Your task to perform on an android device: open app "PUBG MOBILE" (install if not already installed) and enter user name: "phenomenologically@gmail.com" and password: "artillery" Image 0: 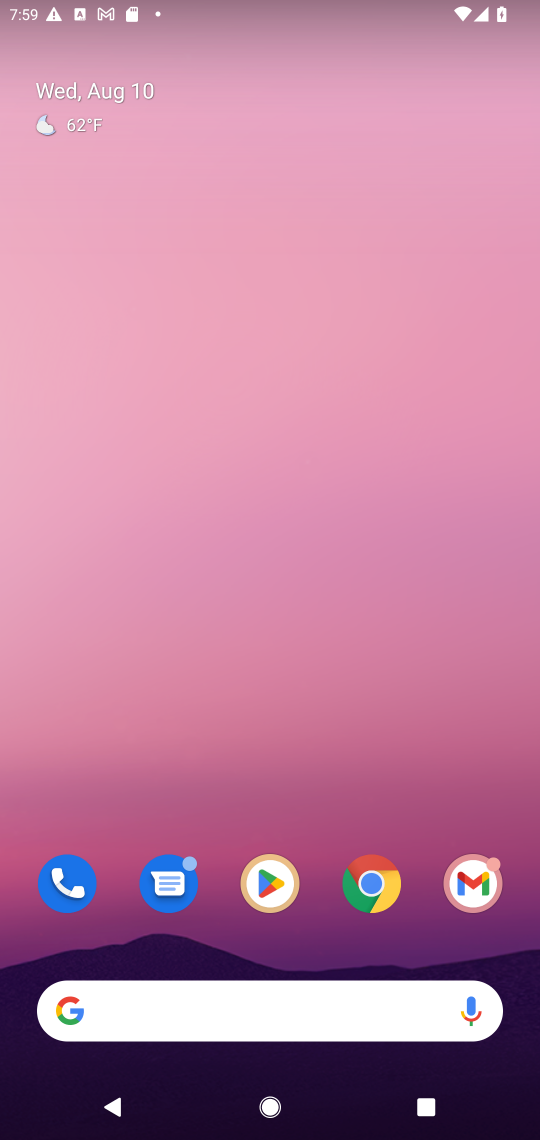
Step 0: click (255, 862)
Your task to perform on an android device: open app "PUBG MOBILE" (install if not already installed) and enter user name: "phenomenologically@gmail.com" and password: "artillery" Image 1: 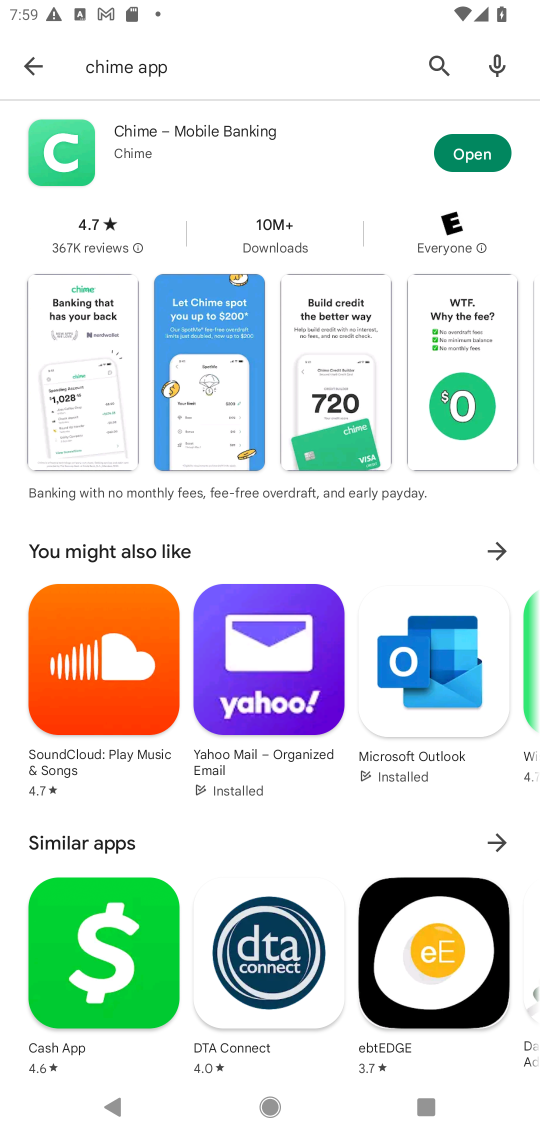
Step 1: click (448, 57)
Your task to perform on an android device: open app "PUBG MOBILE" (install if not already installed) and enter user name: "phenomenologically@gmail.com" and password: "artillery" Image 2: 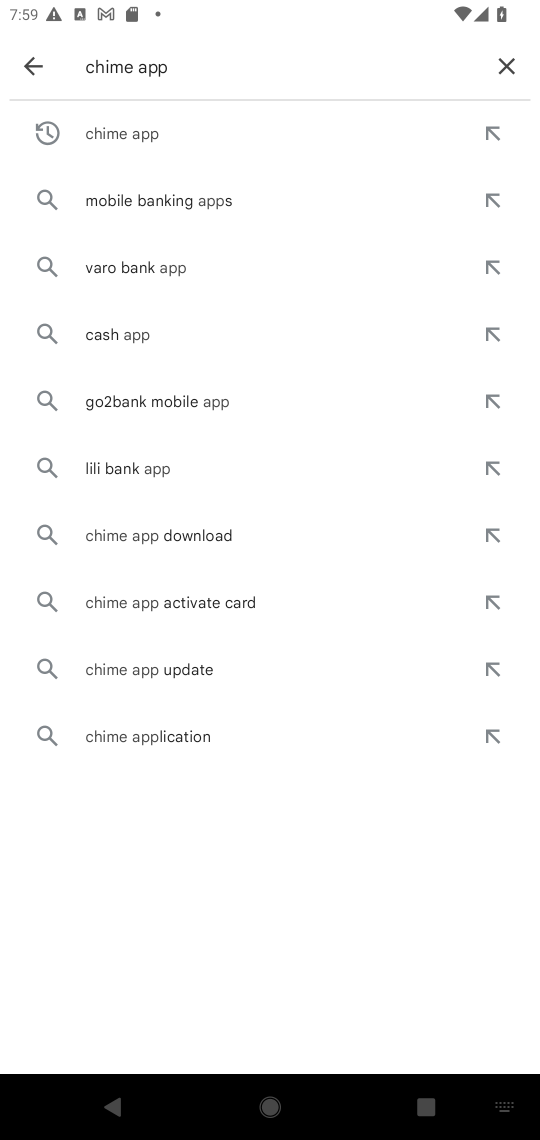
Step 2: click (495, 71)
Your task to perform on an android device: open app "PUBG MOBILE" (install if not already installed) and enter user name: "phenomenologically@gmail.com" and password: "artillery" Image 3: 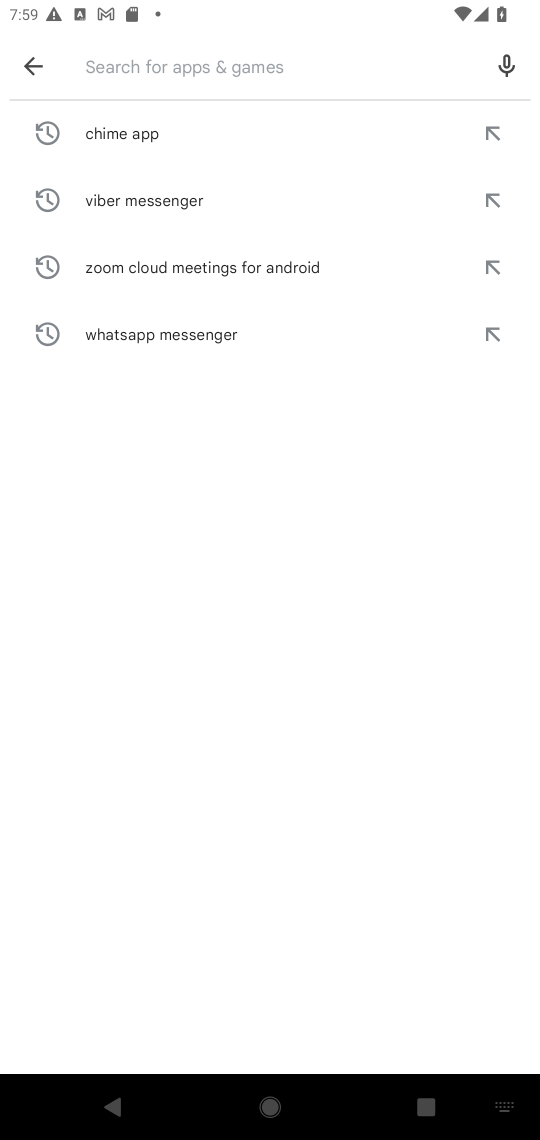
Step 3: type "PUBG MOBILE"
Your task to perform on an android device: open app "PUBG MOBILE" (install if not already installed) and enter user name: "phenomenologically@gmail.com" and password: "artillery" Image 4: 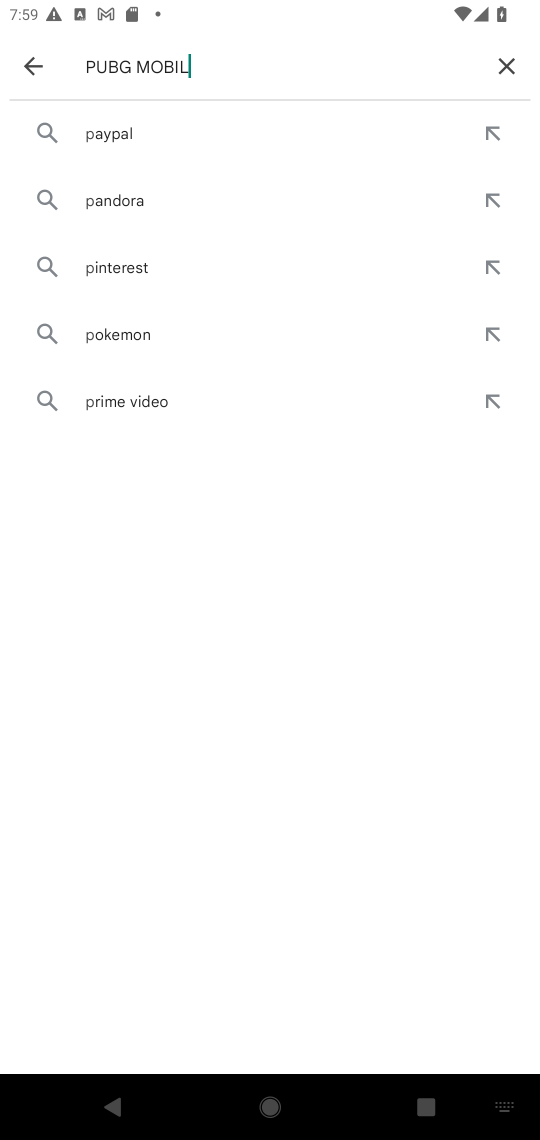
Step 4: type ""
Your task to perform on an android device: open app "PUBG MOBILE" (install if not already installed) and enter user name: "phenomenologically@gmail.com" and password: "artillery" Image 5: 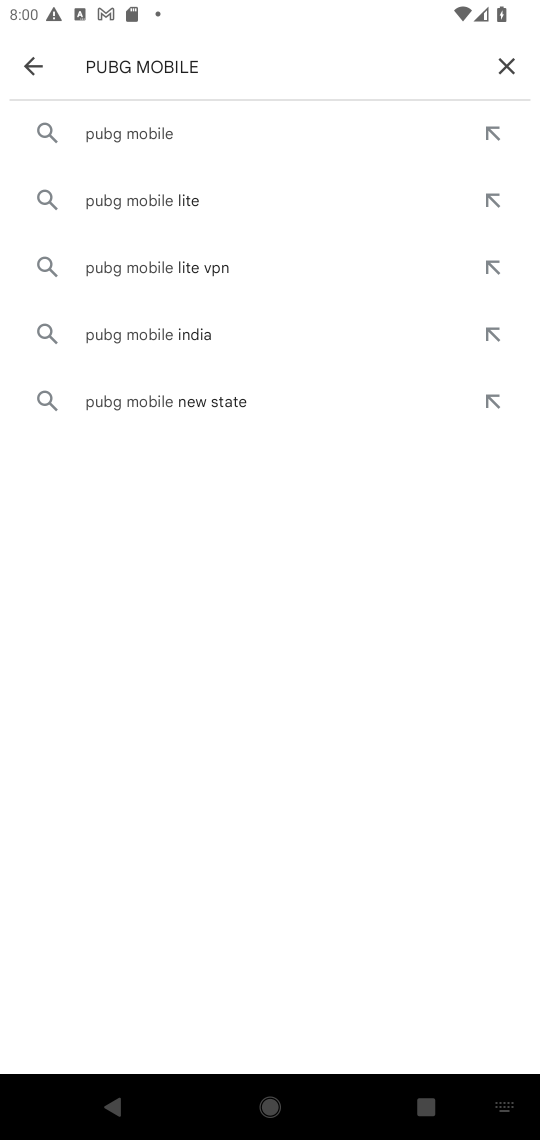
Step 5: click (143, 141)
Your task to perform on an android device: open app "PUBG MOBILE" (install if not already installed) and enter user name: "phenomenologically@gmail.com" and password: "artillery" Image 6: 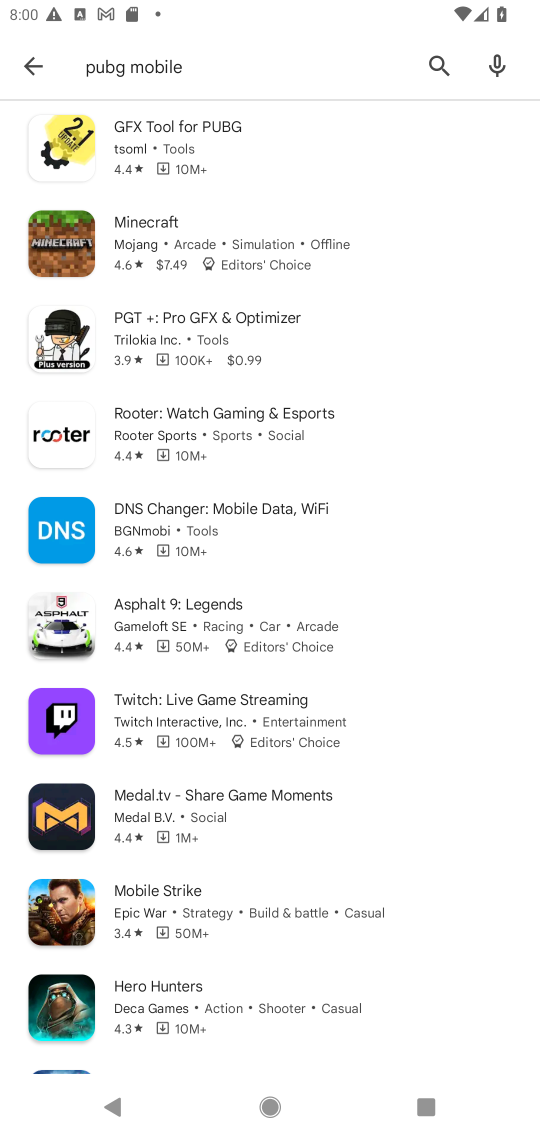
Step 6: task complete